Your task to perform on an android device: open app "YouTube Kids" Image 0: 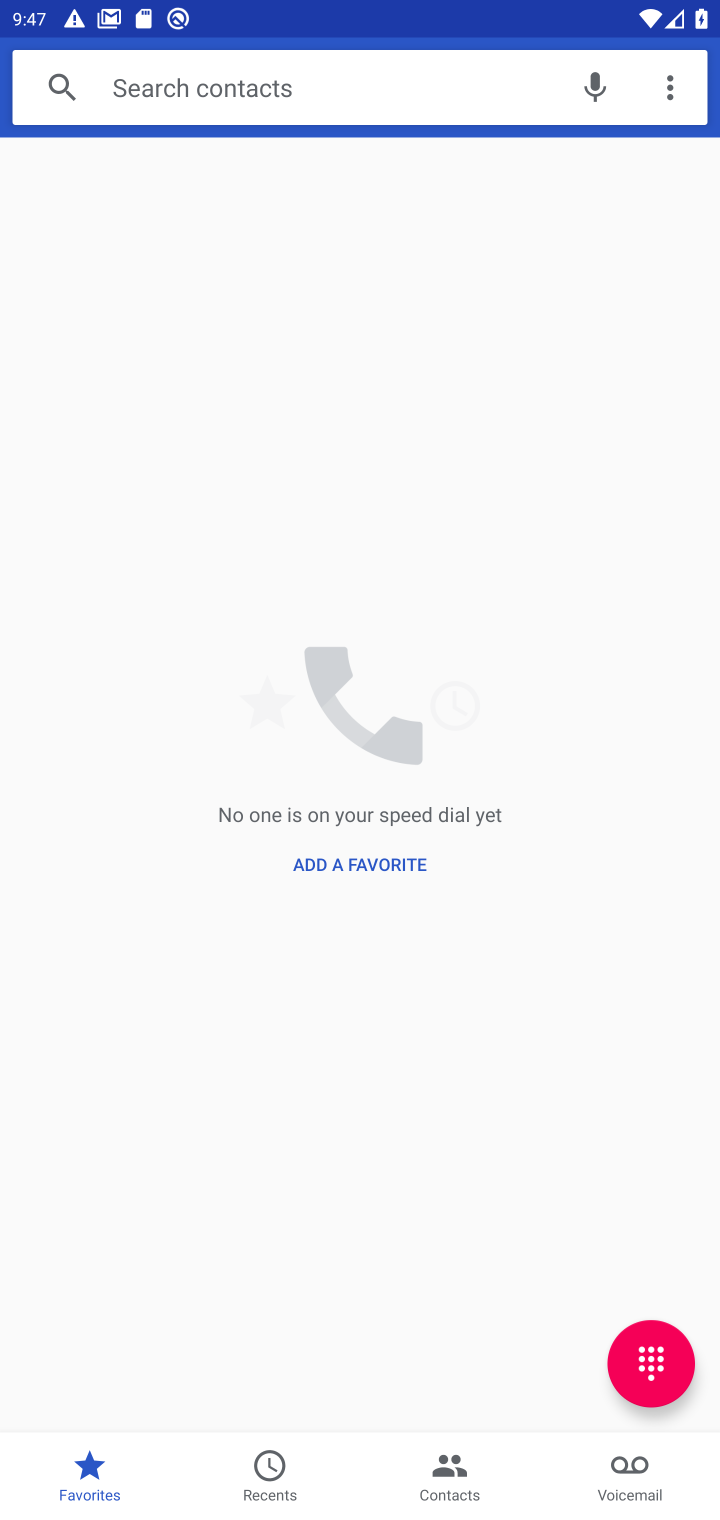
Step 0: press home button
Your task to perform on an android device: open app "YouTube Kids" Image 1: 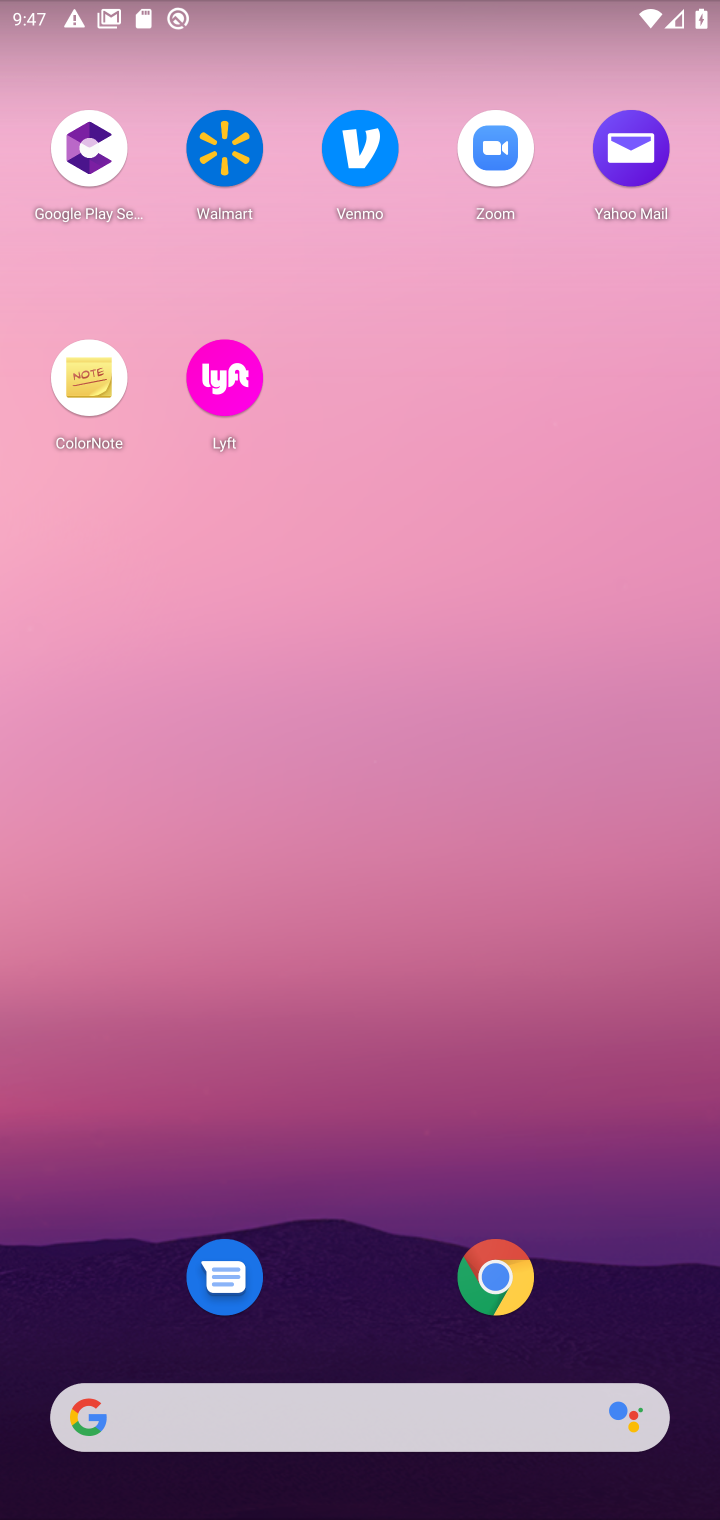
Step 1: drag from (379, 1366) to (454, 39)
Your task to perform on an android device: open app "YouTube Kids" Image 2: 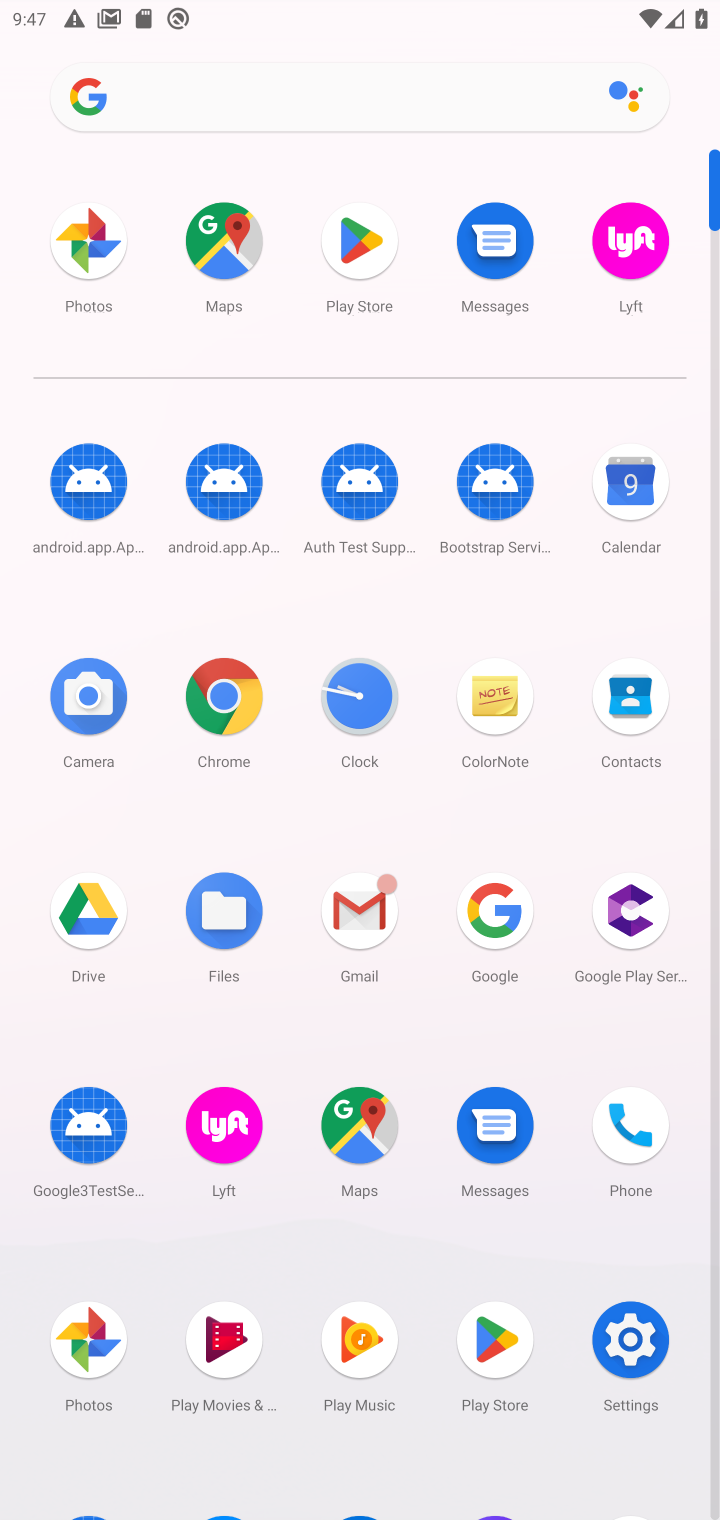
Step 2: drag from (285, 1311) to (96, 270)
Your task to perform on an android device: open app "YouTube Kids" Image 3: 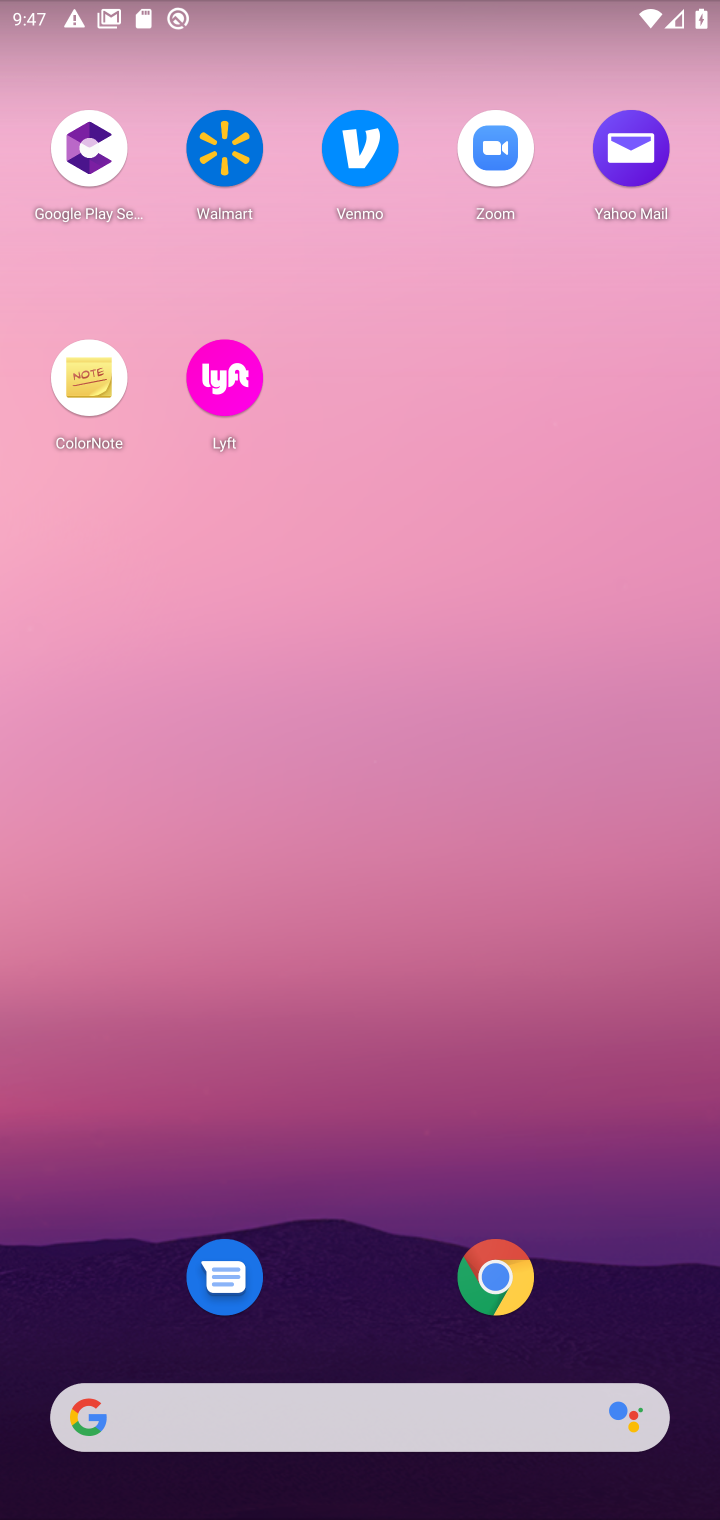
Step 3: drag from (290, 1245) to (219, 62)
Your task to perform on an android device: open app "YouTube Kids" Image 4: 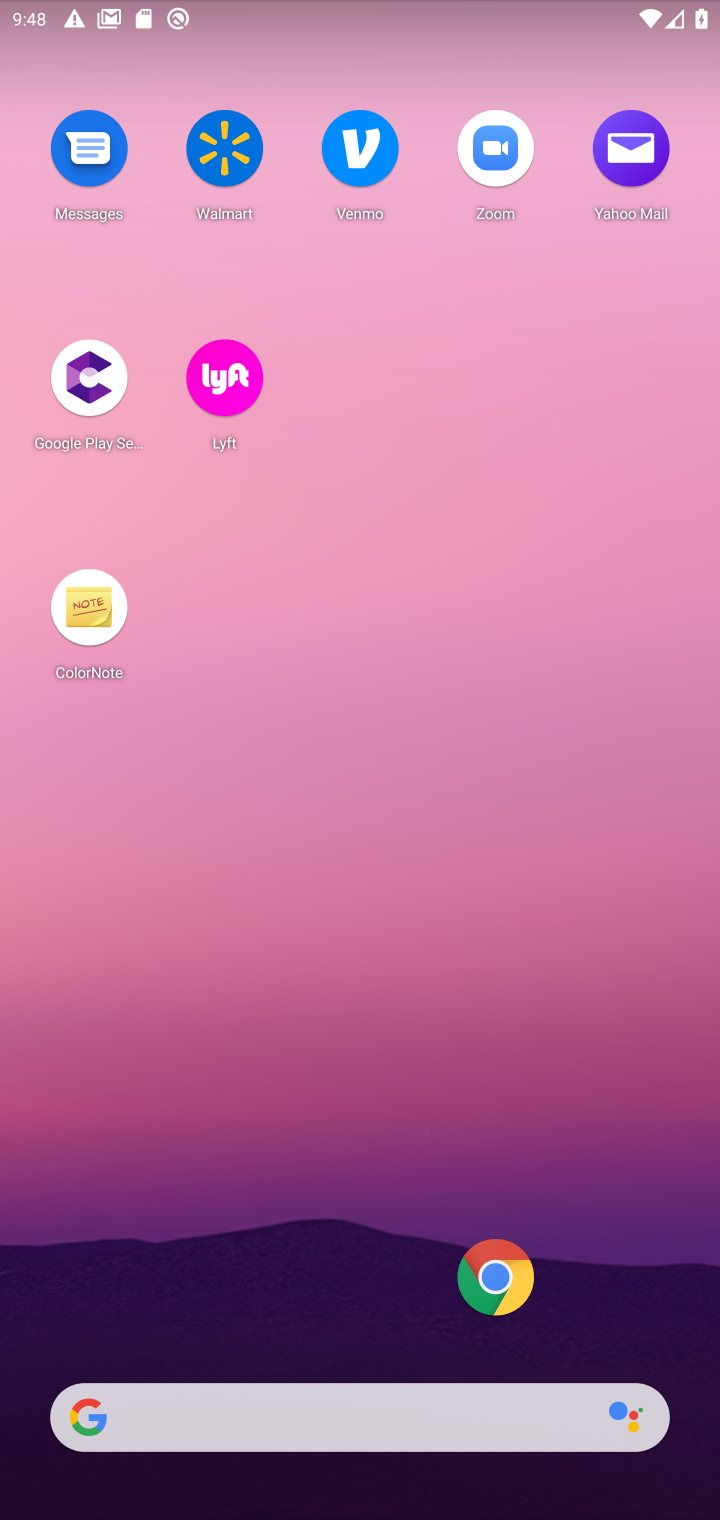
Step 4: drag from (369, 1214) to (257, 1)
Your task to perform on an android device: open app "YouTube Kids" Image 5: 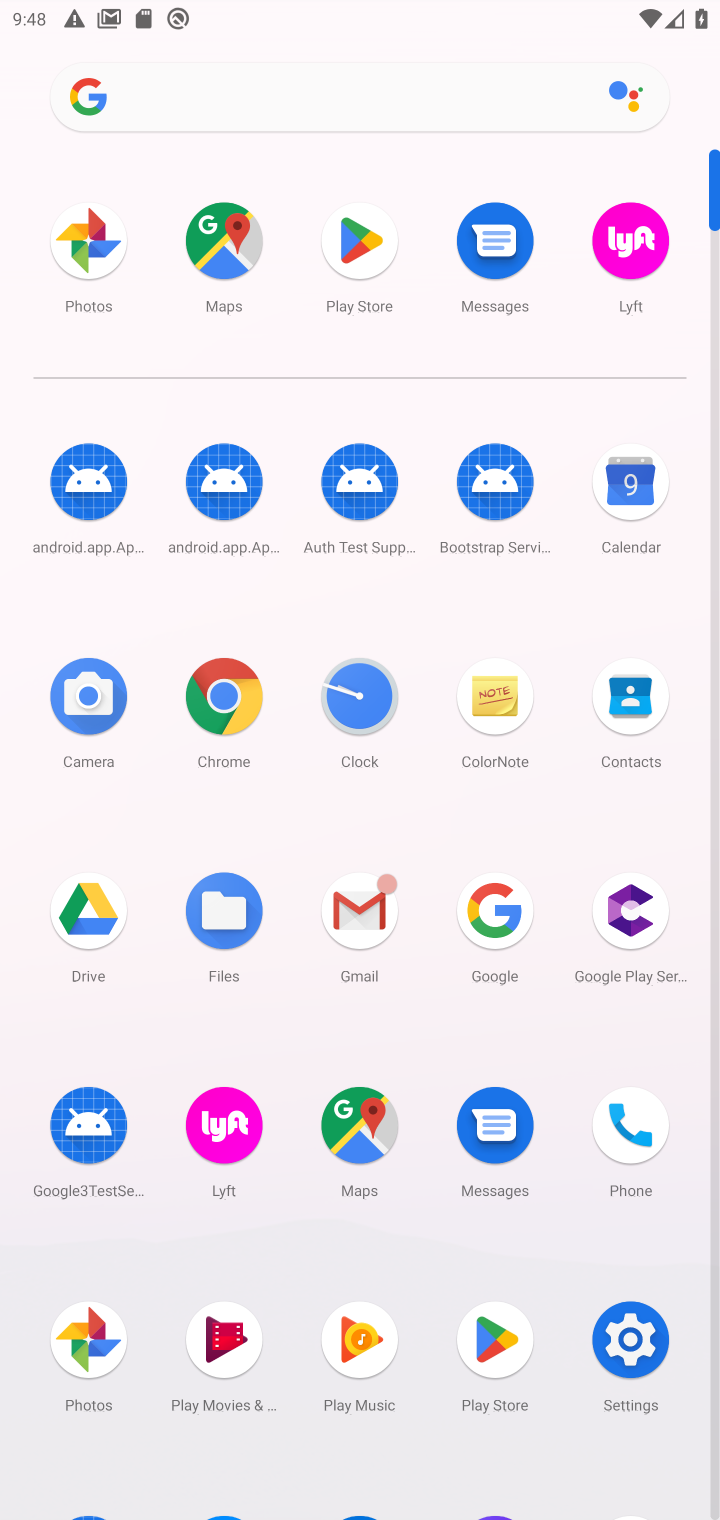
Step 5: drag from (293, 1237) to (160, 219)
Your task to perform on an android device: open app "YouTube Kids" Image 6: 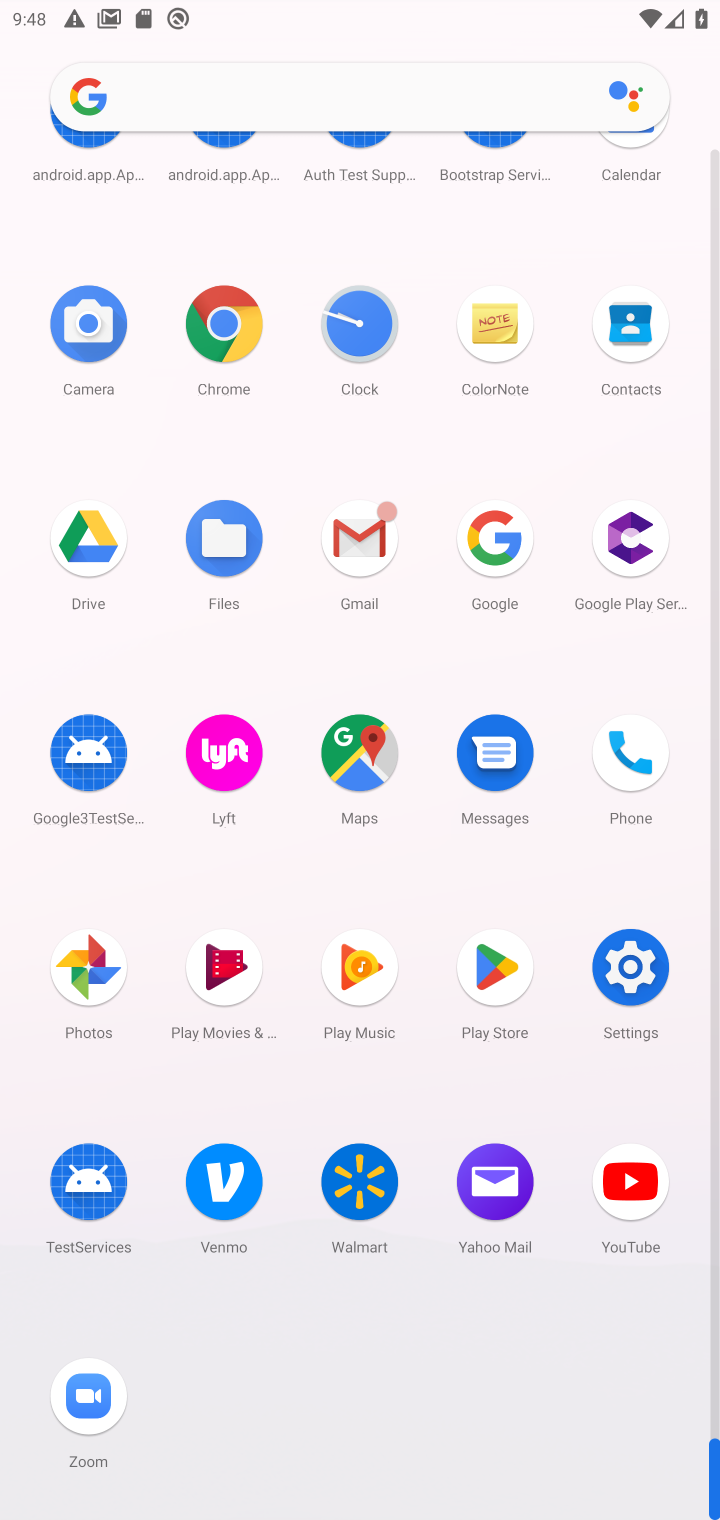
Step 6: click (508, 975)
Your task to perform on an android device: open app "YouTube Kids" Image 7: 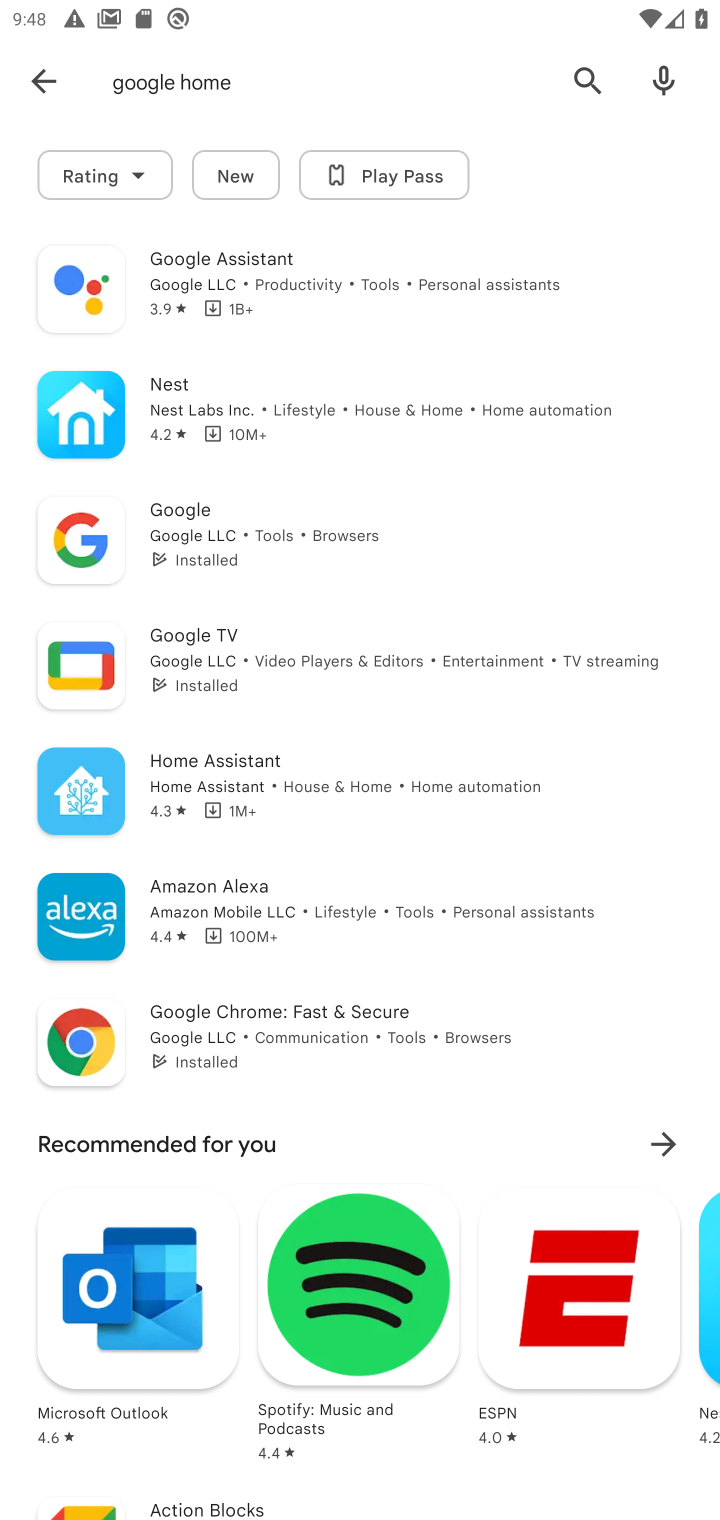
Step 7: click (47, 107)
Your task to perform on an android device: open app "YouTube Kids" Image 8: 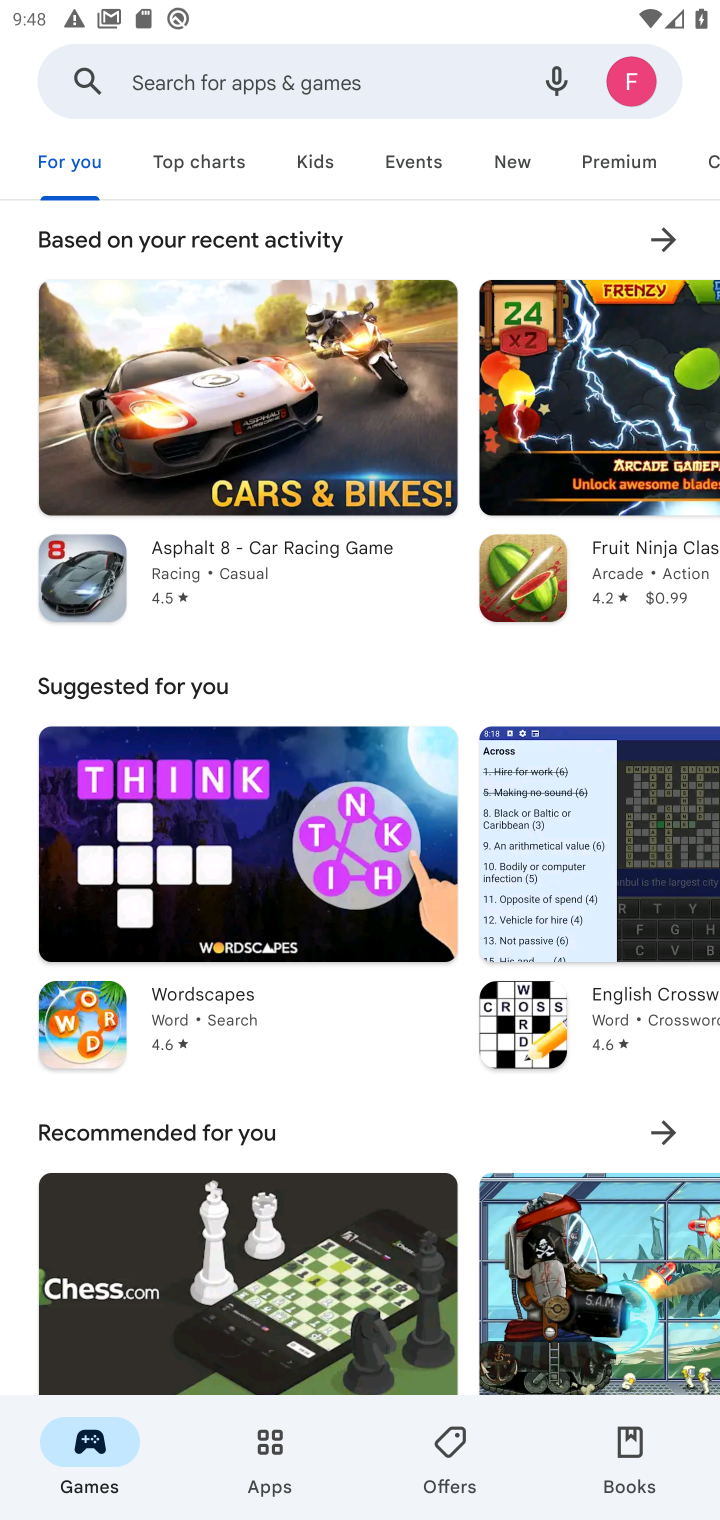
Step 8: click (165, 53)
Your task to perform on an android device: open app "YouTube Kids" Image 9: 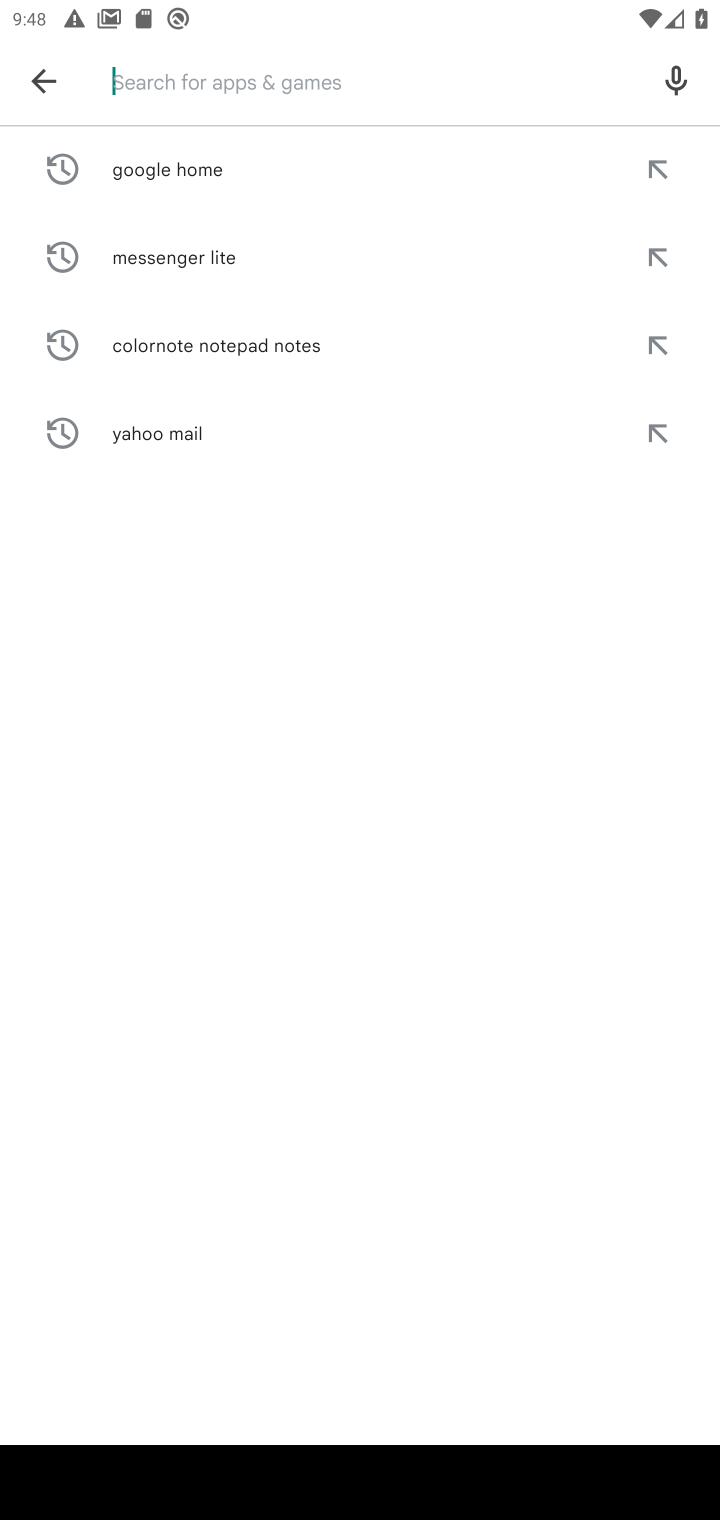
Step 9: type "ouTube Kids"
Your task to perform on an android device: open app "YouTube Kids" Image 10: 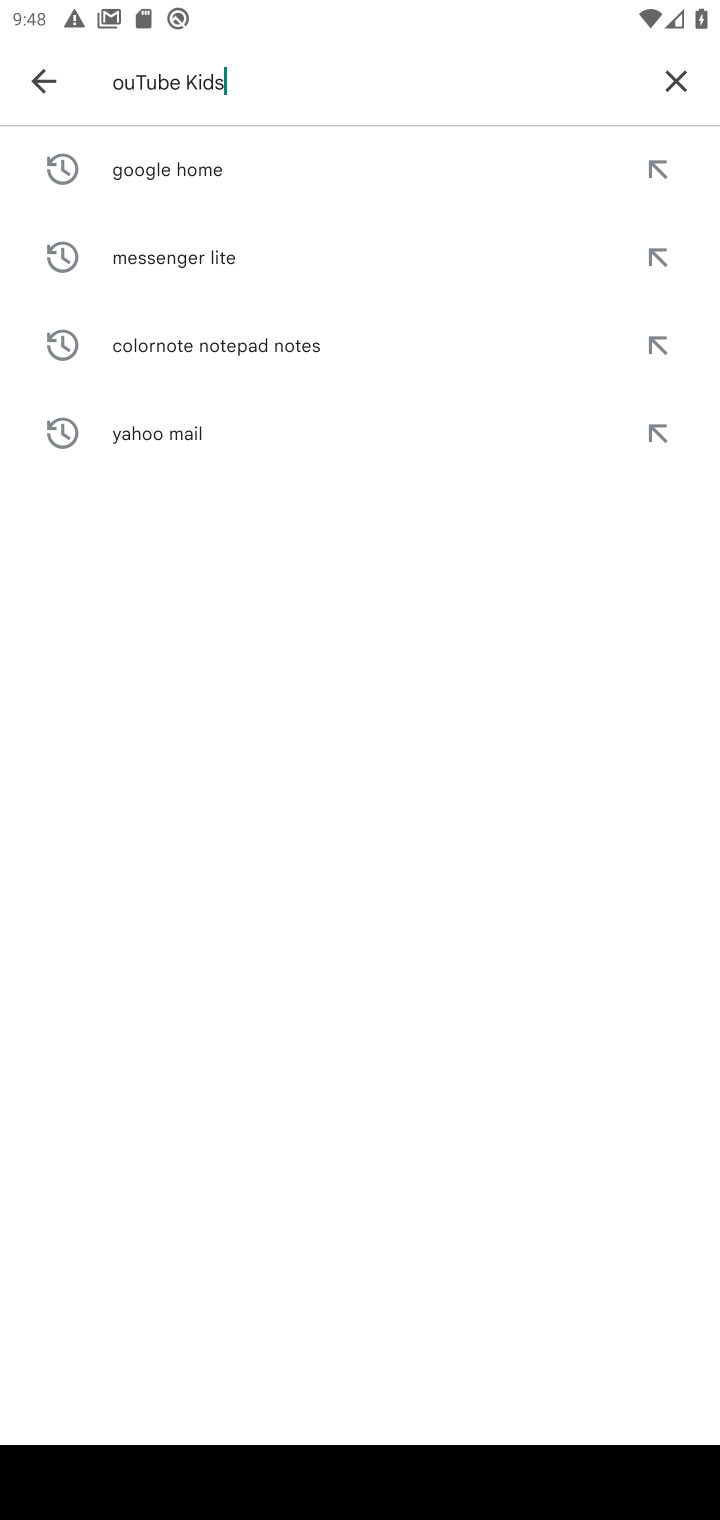
Step 10: type ""
Your task to perform on an android device: open app "YouTube Kids" Image 11: 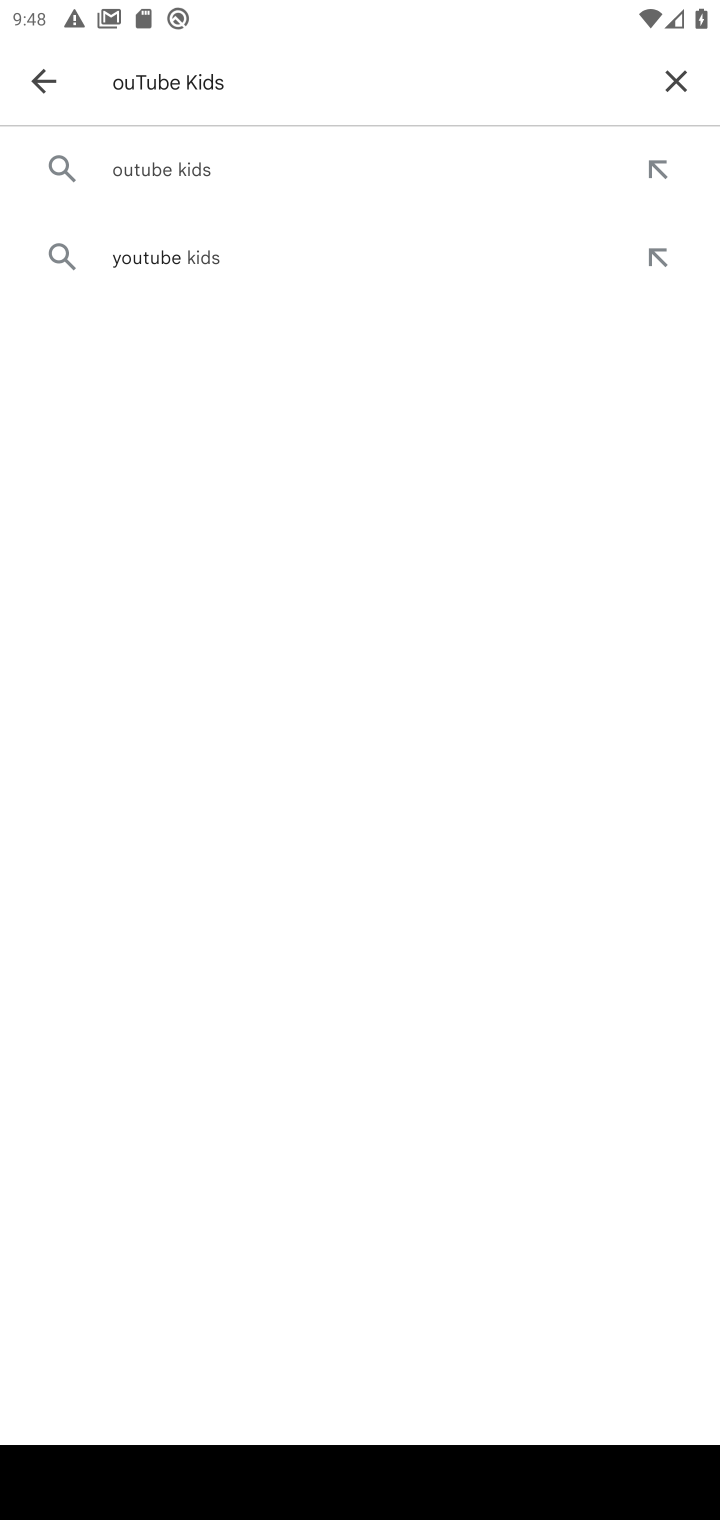
Step 11: click (126, 160)
Your task to perform on an android device: open app "YouTube Kids" Image 12: 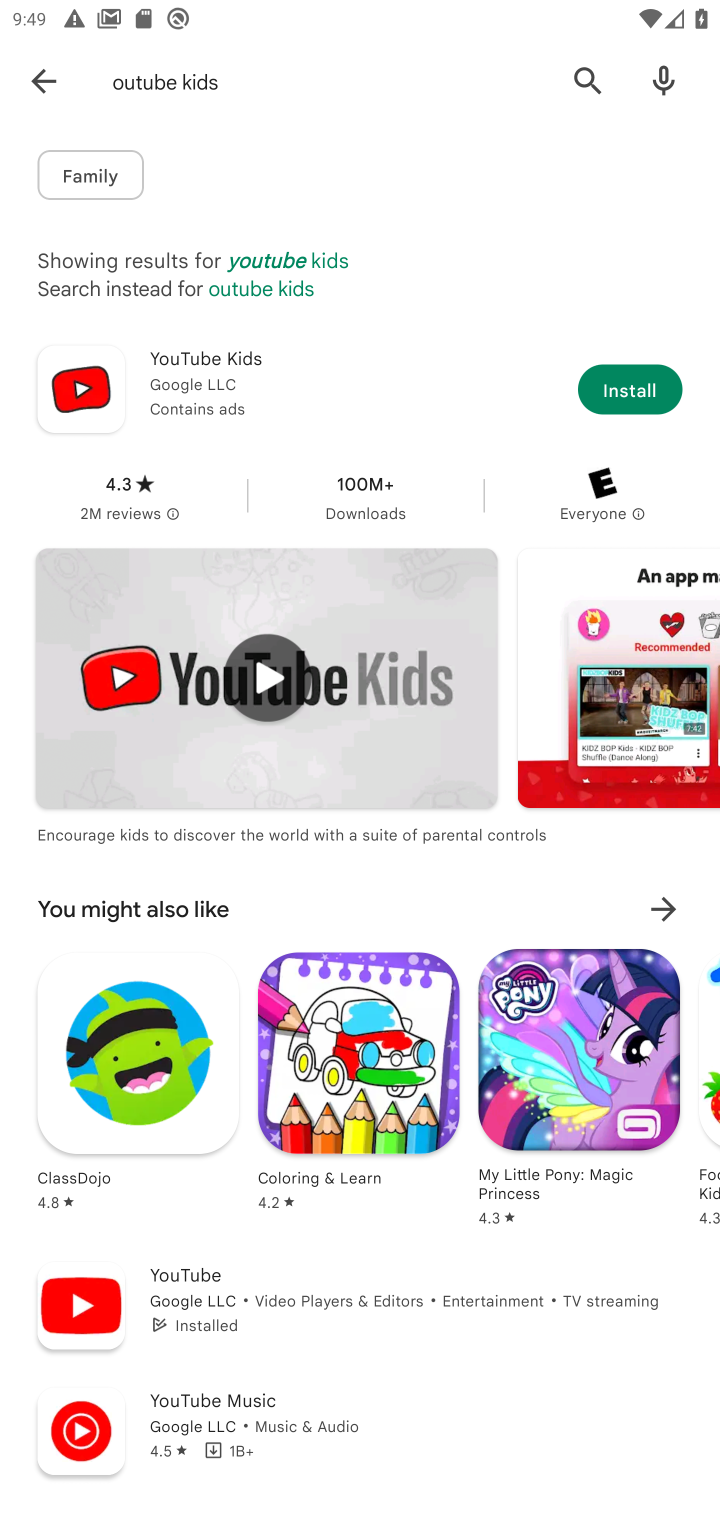
Step 12: task complete